Your task to perform on an android device: What's on my calendar today? Image 0: 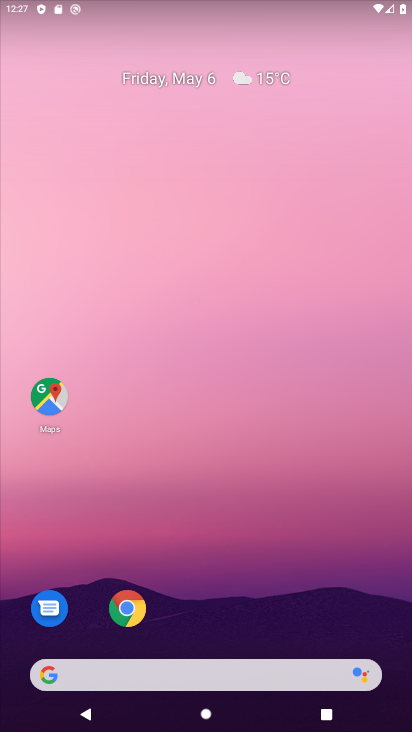
Step 0: drag from (197, 608) to (250, 70)
Your task to perform on an android device: What's on my calendar today? Image 1: 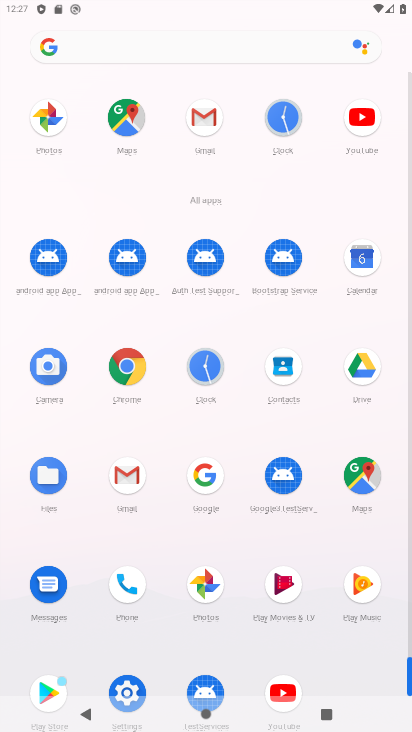
Step 1: drag from (170, 633) to (204, 251)
Your task to perform on an android device: What's on my calendar today? Image 2: 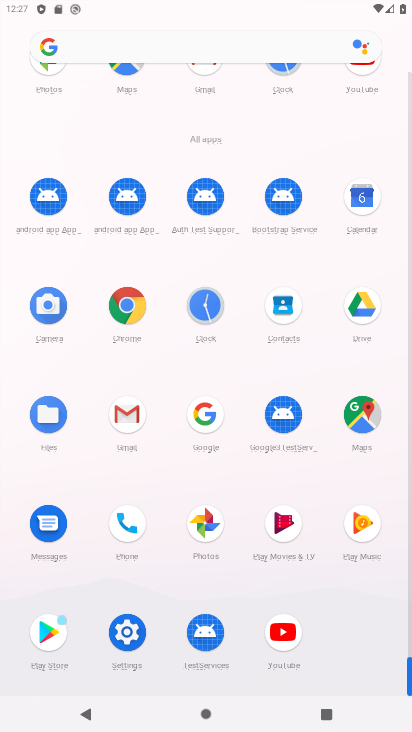
Step 2: drag from (141, 585) to (185, 317)
Your task to perform on an android device: What's on my calendar today? Image 3: 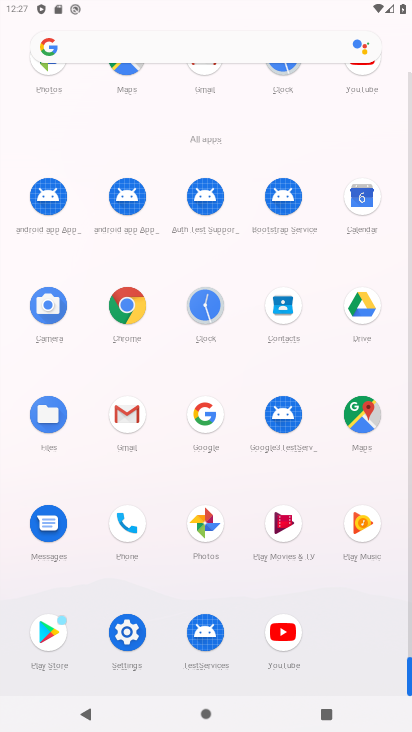
Step 3: drag from (162, 573) to (182, 326)
Your task to perform on an android device: What's on my calendar today? Image 4: 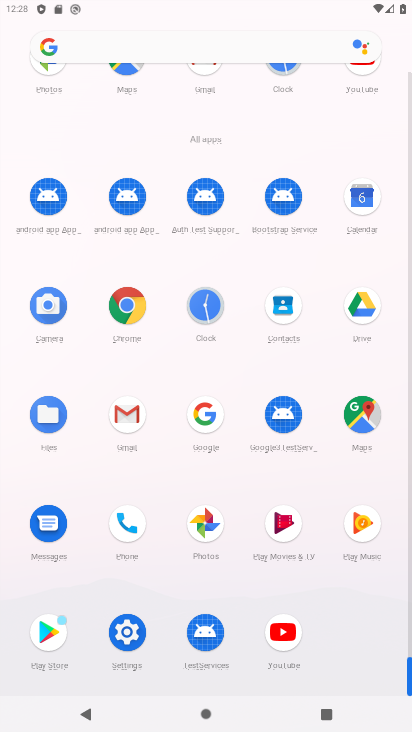
Step 4: drag from (146, 568) to (148, 347)
Your task to perform on an android device: What's on my calendar today? Image 5: 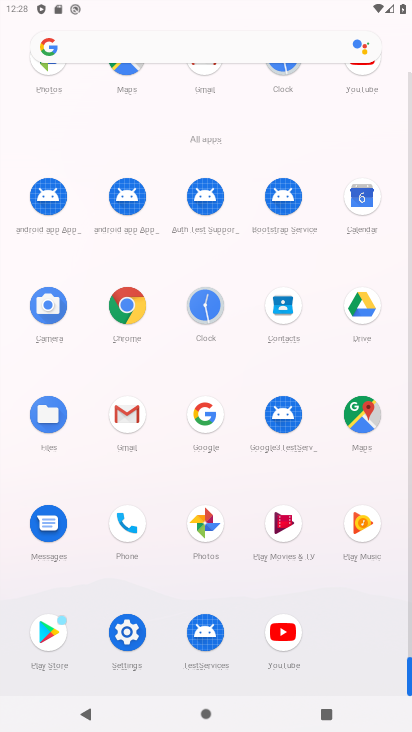
Step 5: click (360, 205)
Your task to perform on an android device: What's on my calendar today? Image 6: 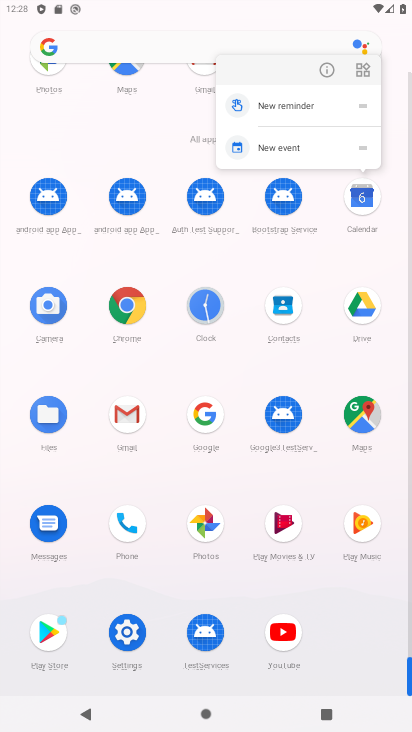
Step 6: click (326, 70)
Your task to perform on an android device: What's on my calendar today? Image 7: 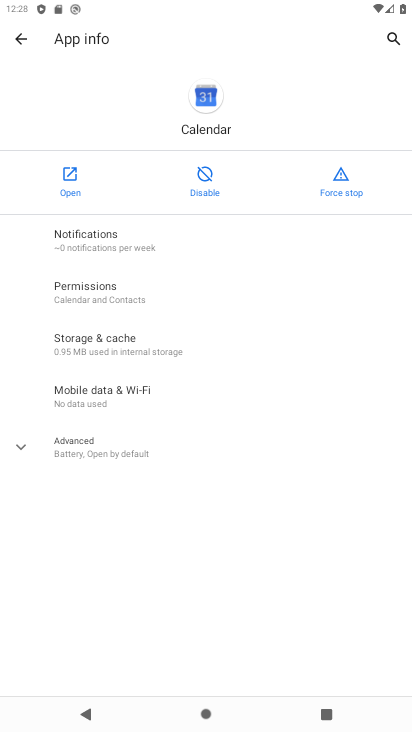
Step 7: click (68, 188)
Your task to perform on an android device: What's on my calendar today? Image 8: 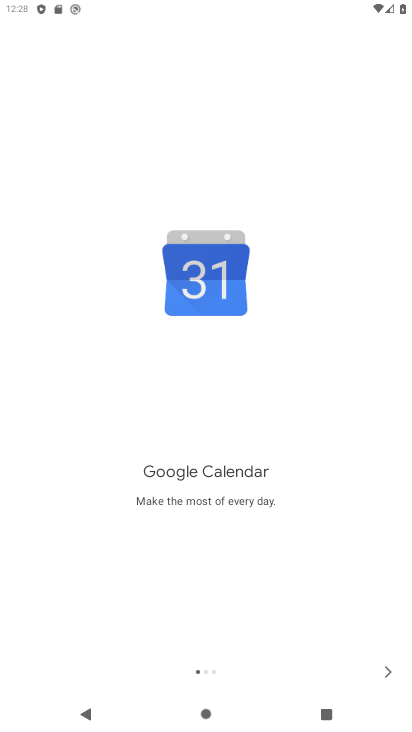
Step 8: click (384, 670)
Your task to perform on an android device: What's on my calendar today? Image 9: 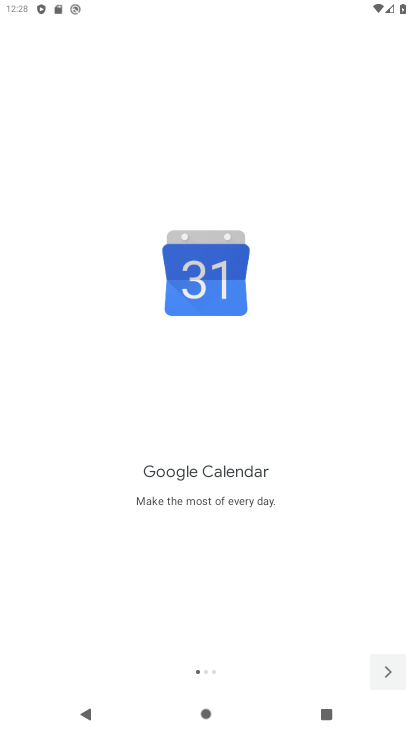
Step 9: click (384, 670)
Your task to perform on an android device: What's on my calendar today? Image 10: 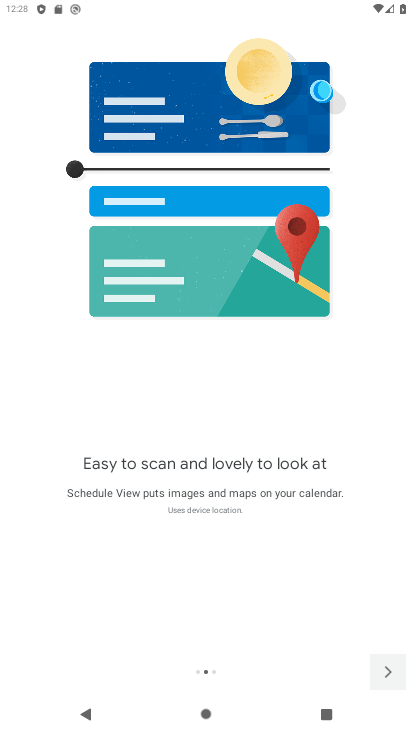
Step 10: click (385, 669)
Your task to perform on an android device: What's on my calendar today? Image 11: 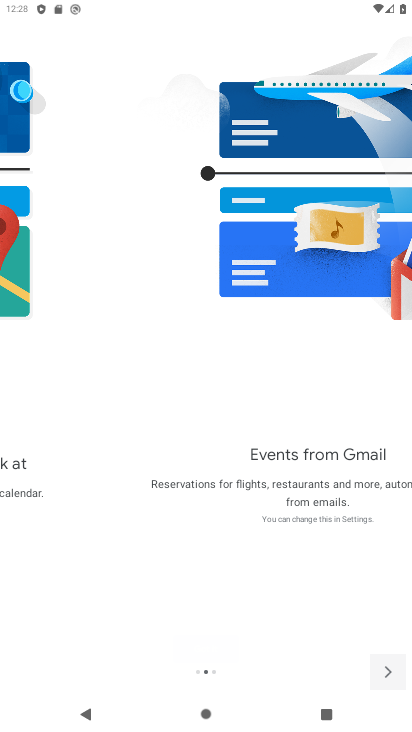
Step 11: click (384, 669)
Your task to perform on an android device: What's on my calendar today? Image 12: 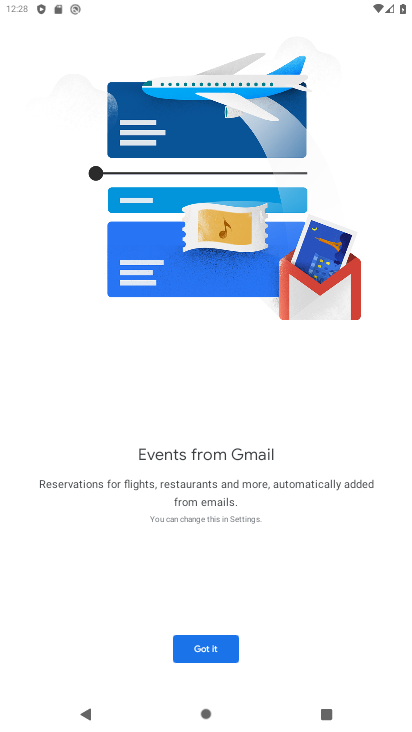
Step 12: click (382, 669)
Your task to perform on an android device: What's on my calendar today? Image 13: 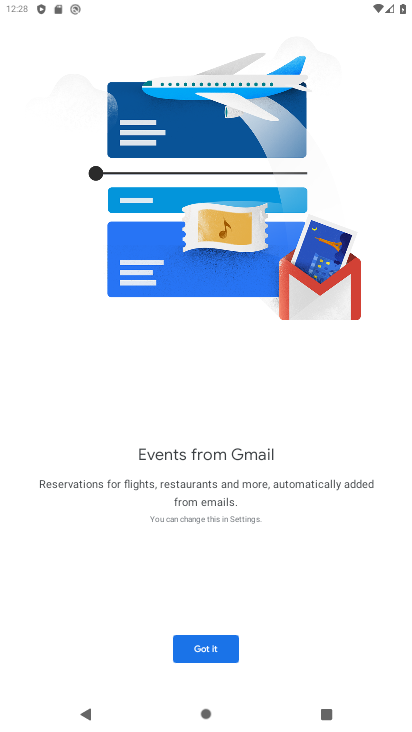
Step 13: click (202, 660)
Your task to perform on an android device: What's on my calendar today? Image 14: 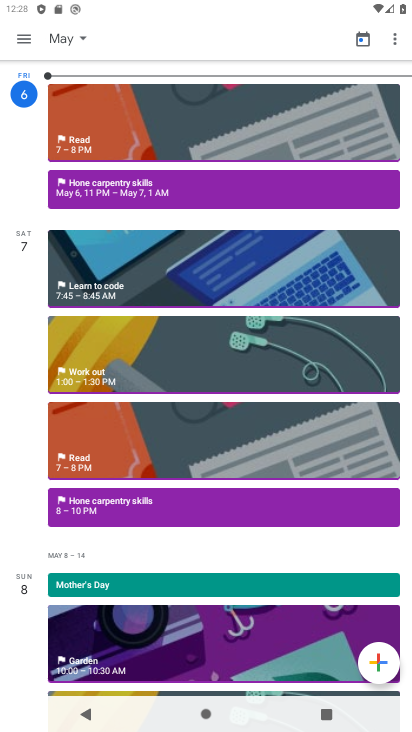
Step 14: drag from (208, 612) to (219, 136)
Your task to perform on an android device: What's on my calendar today? Image 15: 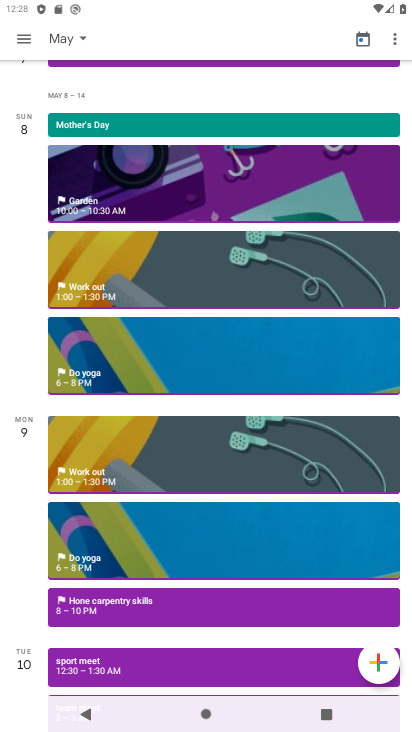
Step 15: drag from (174, 601) to (198, 223)
Your task to perform on an android device: What's on my calendar today? Image 16: 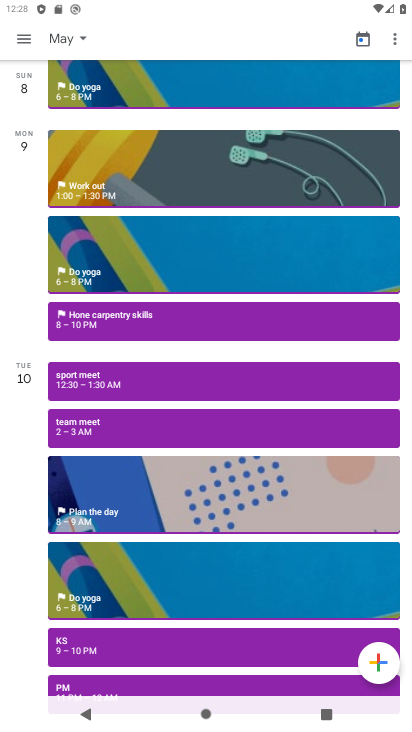
Step 16: click (59, 42)
Your task to perform on an android device: What's on my calendar today? Image 17: 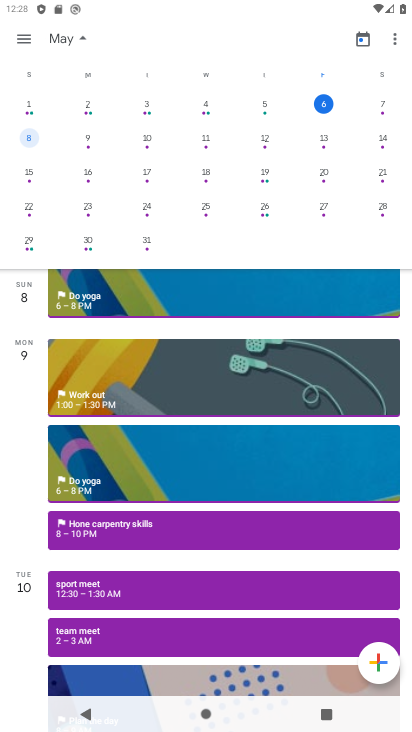
Step 17: click (108, 171)
Your task to perform on an android device: What's on my calendar today? Image 18: 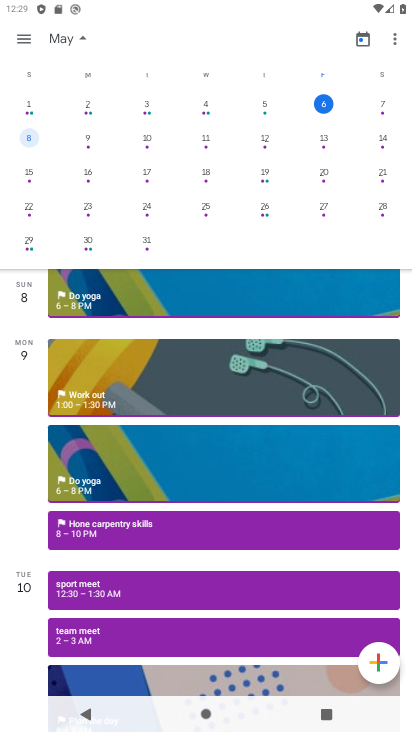
Step 18: click (317, 105)
Your task to perform on an android device: What's on my calendar today? Image 19: 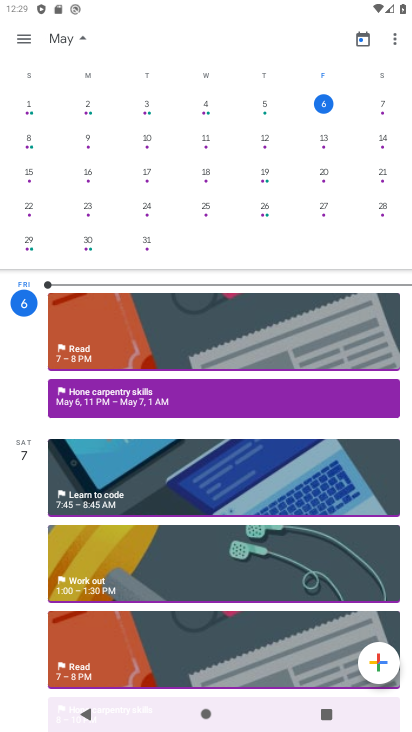
Step 19: click (324, 102)
Your task to perform on an android device: What's on my calendar today? Image 20: 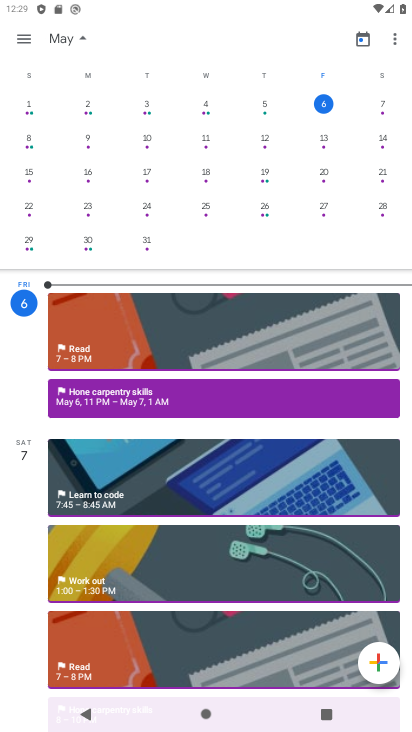
Step 20: task complete